Your task to perform on an android device: move an email to a new category in the gmail app Image 0: 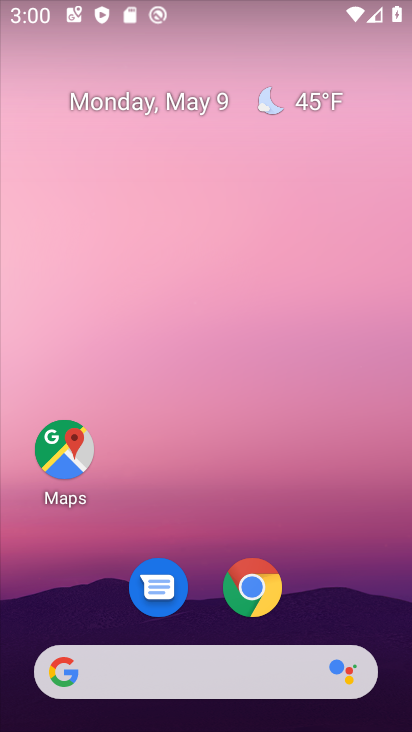
Step 0: drag from (202, 629) to (258, 112)
Your task to perform on an android device: move an email to a new category in the gmail app Image 1: 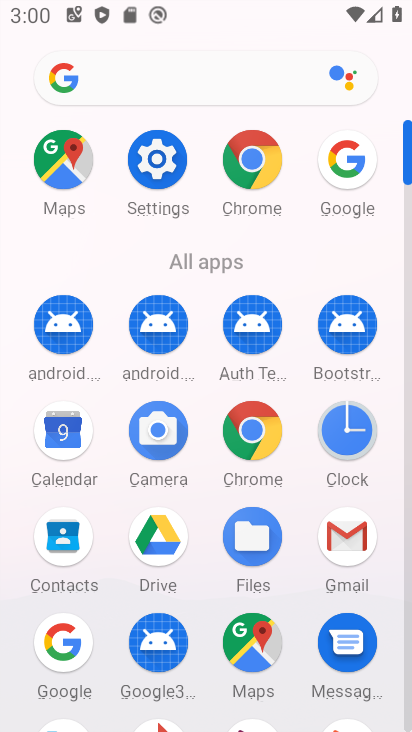
Step 1: click (358, 556)
Your task to perform on an android device: move an email to a new category in the gmail app Image 2: 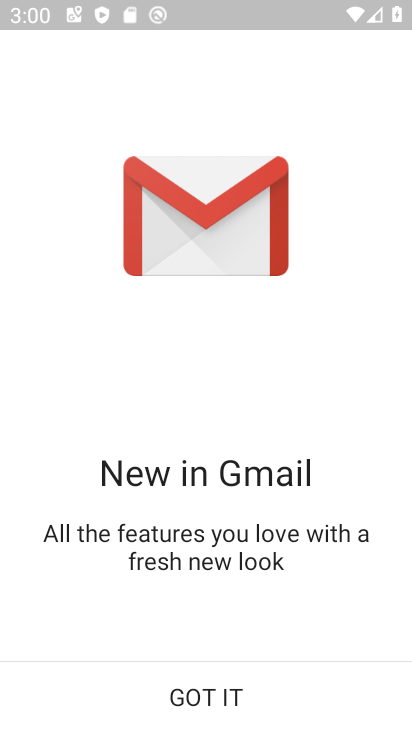
Step 2: click (266, 695)
Your task to perform on an android device: move an email to a new category in the gmail app Image 3: 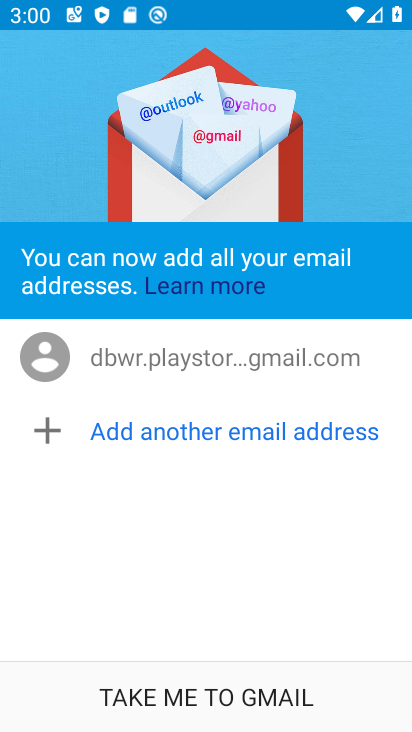
Step 3: click (266, 695)
Your task to perform on an android device: move an email to a new category in the gmail app Image 4: 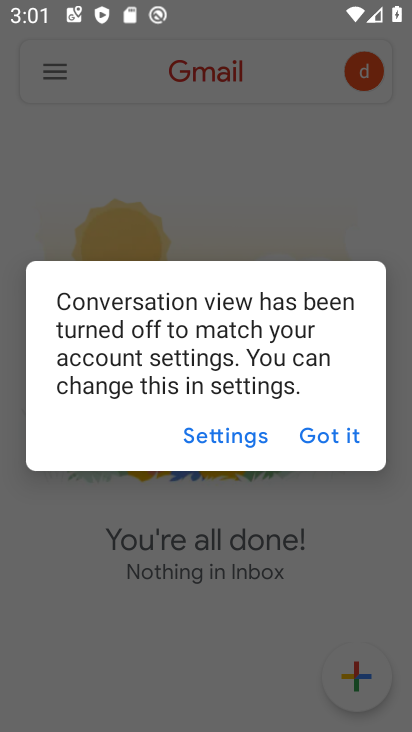
Step 4: click (354, 442)
Your task to perform on an android device: move an email to a new category in the gmail app Image 5: 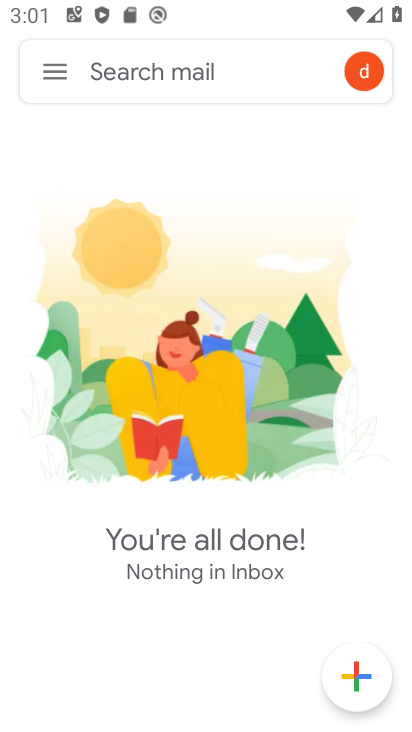
Step 5: click (55, 60)
Your task to perform on an android device: move an email to a new category in the gmail app Image 6: 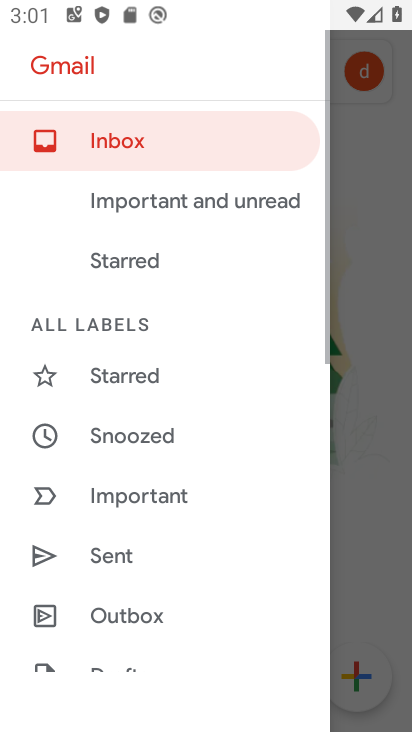
Step 6: drag from (129, 579) to (172, 378)
Your task to perform on an android device: move an email to a new category in the gmail app Image 7: 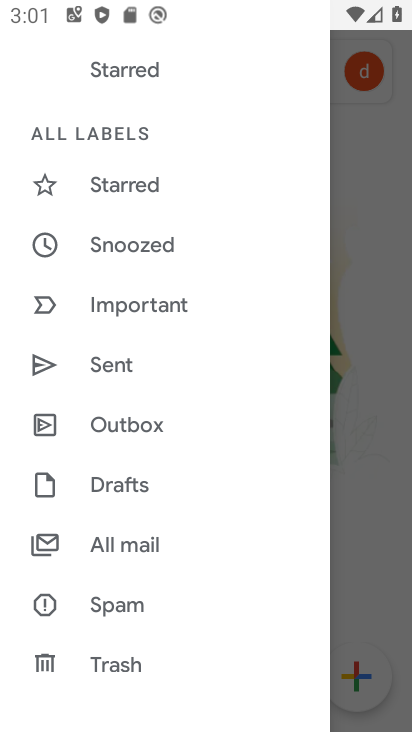
Step 7: click (144, 542)
Your task to perform on an android device: move an email to a new category in the gmail app Image 8: 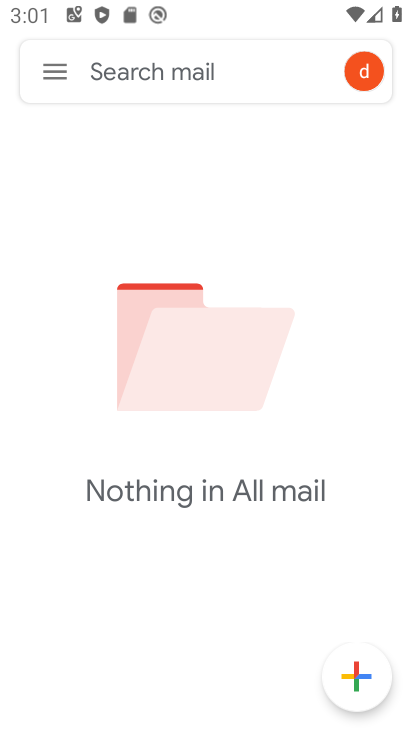
Step 8: task complete